Your task to perform on an android device: Open settings Image 0: 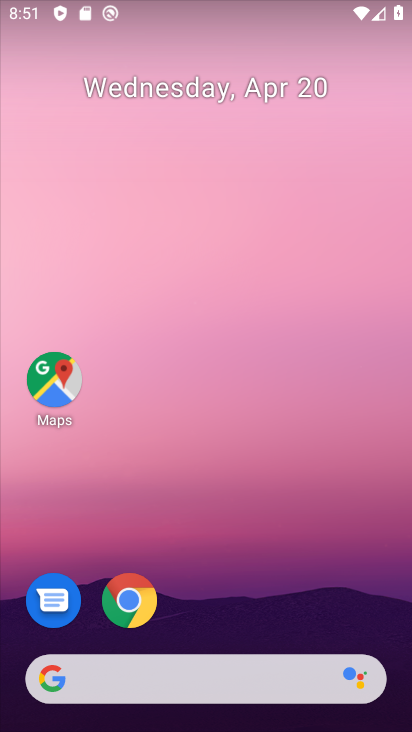
Step 0: click (228, 205)
Your task to perform on an android device: Open settings Image 1: 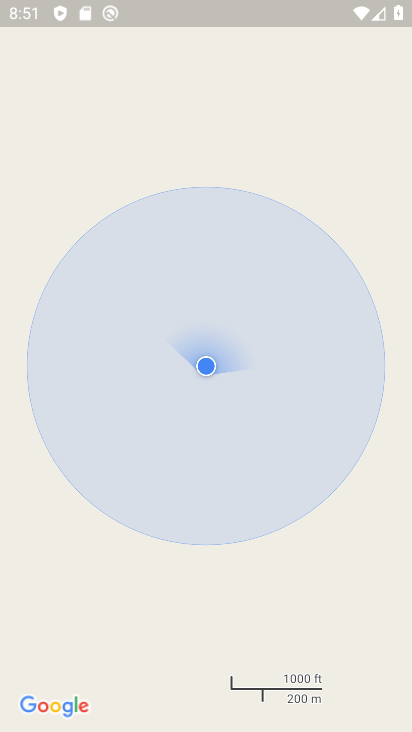
Step 1: press home button
Your task to perform on an android device: Open settings Image 2: 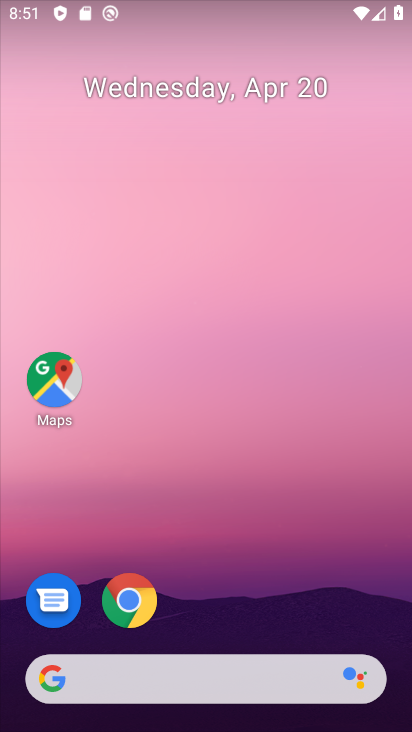
Step 2: drag from (214, 670) to (165, 159)
Your task to perform on an android device: Open settings Image 3: 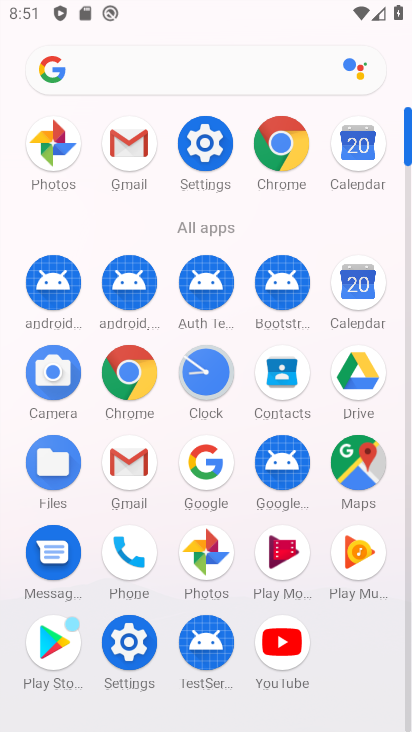
Step 3: click (134, 670)
Your task to perform on an android device: Open settings Image 4: 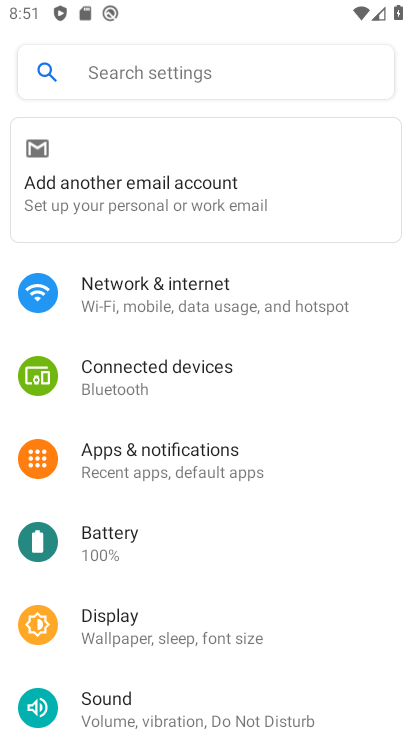
Step 4: task complete